Your task to perform on an android device: Open Chrome and go to the settings page Image 0: 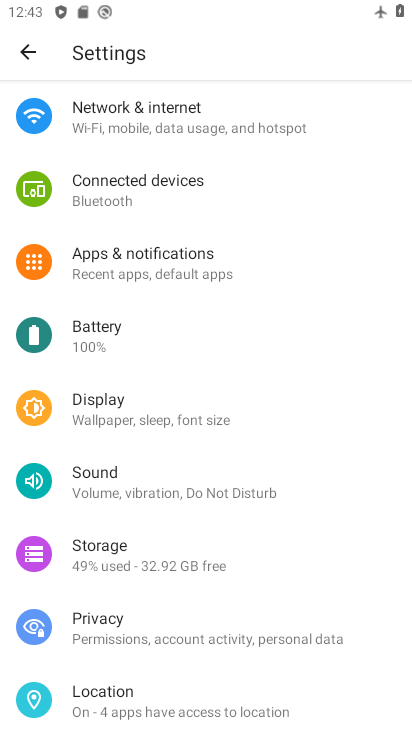
Step 0: press home button
Your task to perform on an android device: Open Chrome and go to the settings page Image 1: 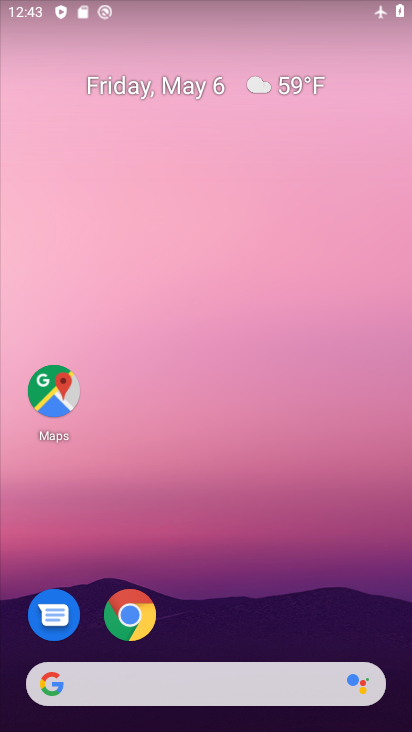
Step 1: drag from (264, 579) to (313, 48)
Your task to perform on an android device: Open Chrome and go to the settings page Image 2: 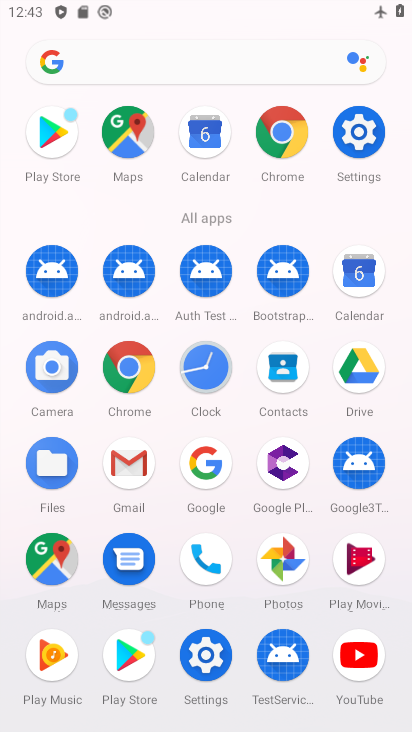
Step 2: click (281, 134)
Your task to perform on an android device: Open Chrome and go to the settings page Image 3: 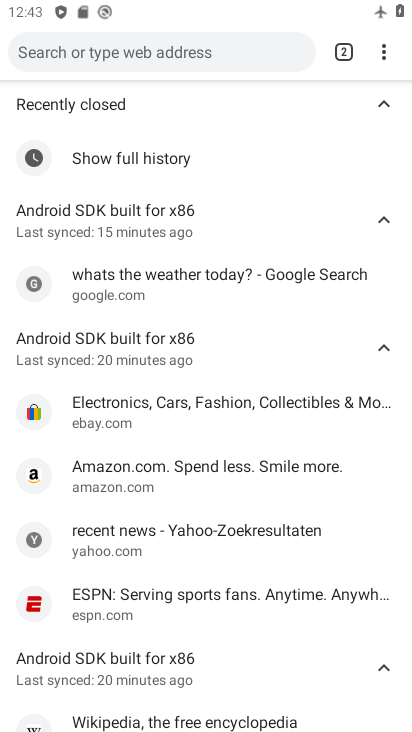
Step 3: task complete